Your task to perform on an android device: all mails in gmail Image 0: 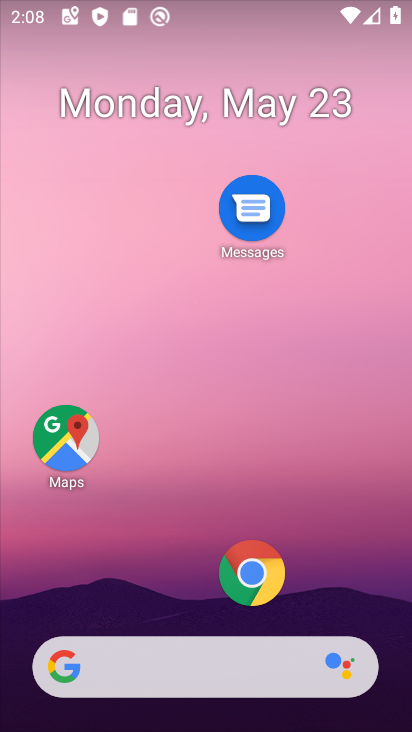
Step 0: drag from (229, 642) to (237, 4)
Your task to perform on an android device: all mails in gmail Image 1: 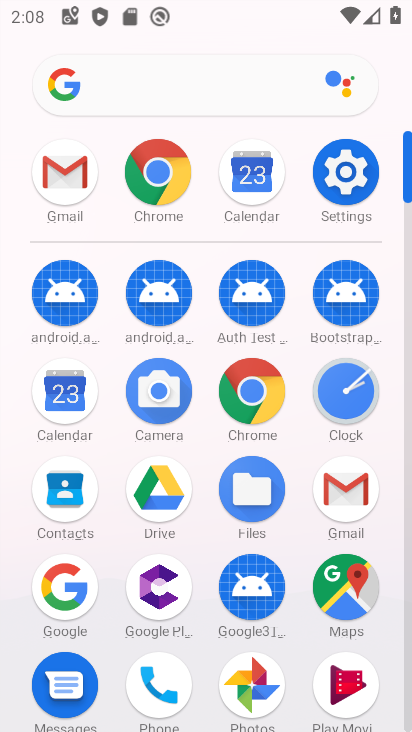
Step 1: click (334, 487)
Your task to perform on an android device: all mails in gmail Image 2: 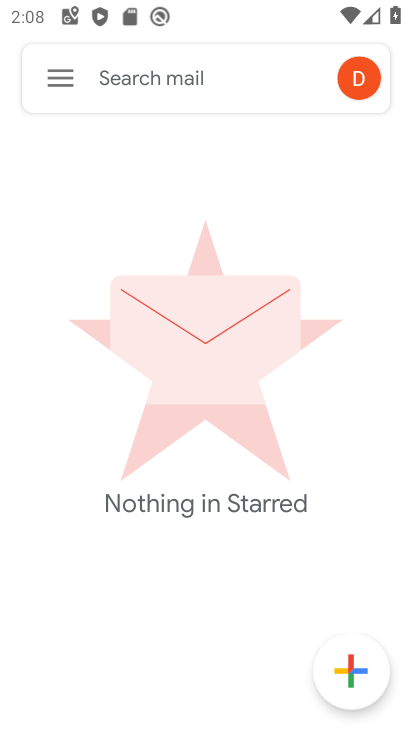
Step 2: click (57, 71)
Your task to perform on an android device: all mails in gmail Image 3: 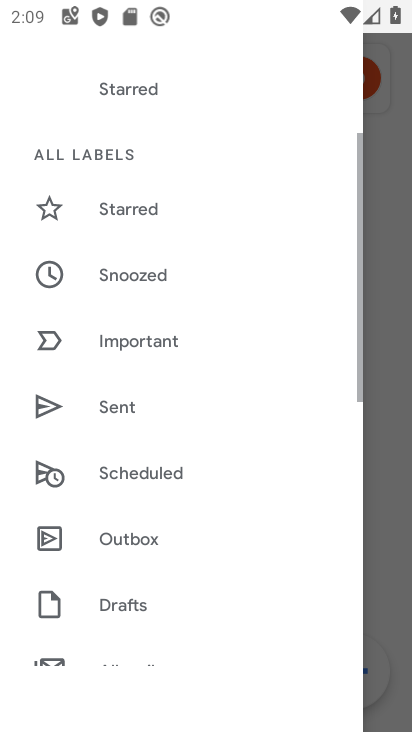
Step 3: drag from (266, 598) to (298, 80)
Your task to perform on an android device: all mails in gmail Image 4: 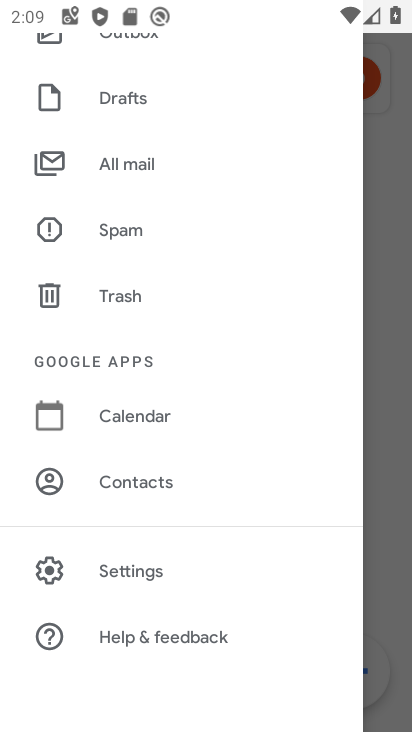
Step 4: click (154, 165)
Your task to perform on an android device: all mails in gmail Image 5: 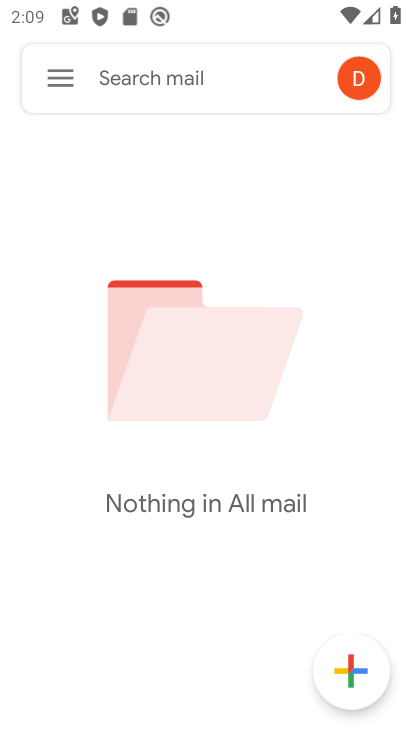
Step 5: task complete